Your task to perform on an android device: manage bookmarks in the chrome app Image 0: 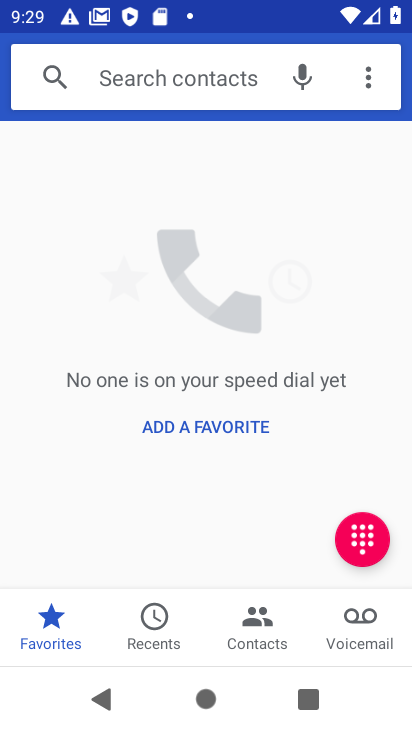
Step 0: press home button
Your task to perform on an android device: manage bookmarks in the chrome app Image 1: 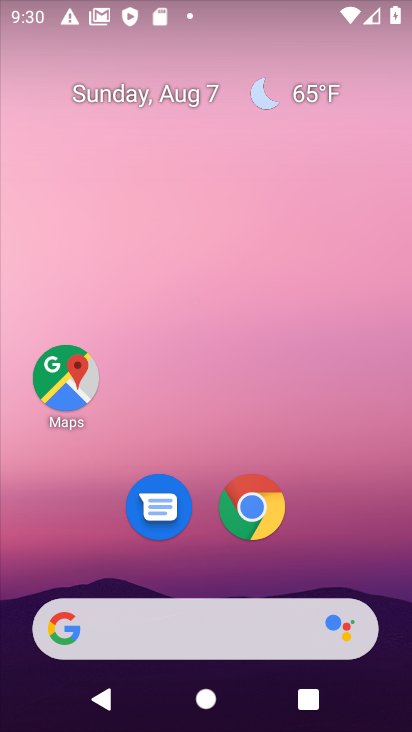
Step 1: drag from (327, 544) to (280, 97)
Your task to perform on an android device: manage bookmarks in the chrome app Image 2: 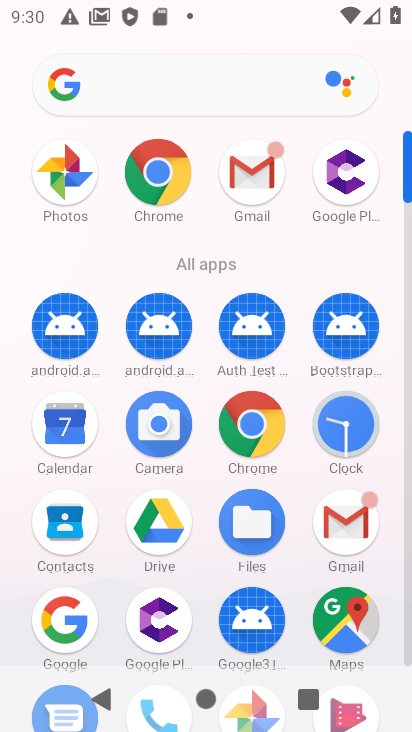
Step 2: click (261, 421)
Your task to perform on an android device: manage bookmarks in the chrome app Image 3: 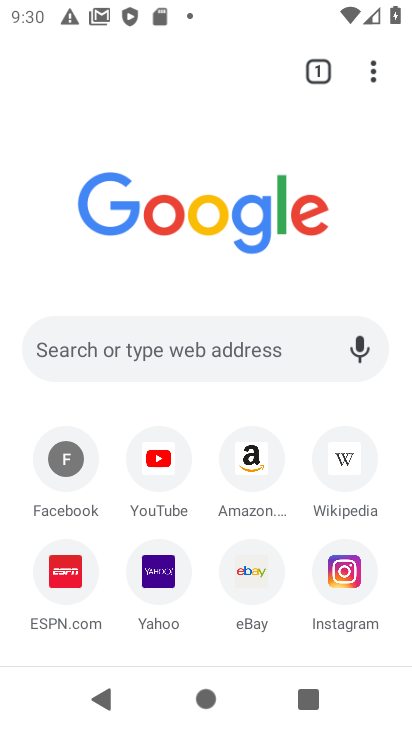
Step 3: drag from (380, 69) to (103, 178)
Your task to perform on an android device: manage bookmarks in the chrome app Image 4: 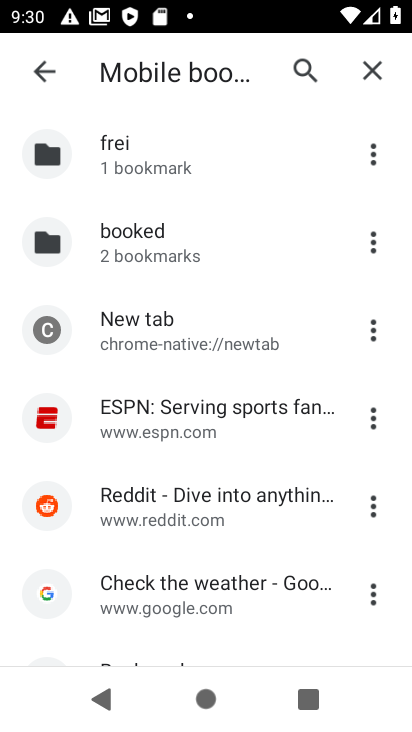
Step 4: click (380, 242)
Your task to perform on an android device: manage bookmarks in the chrome app Image 5: 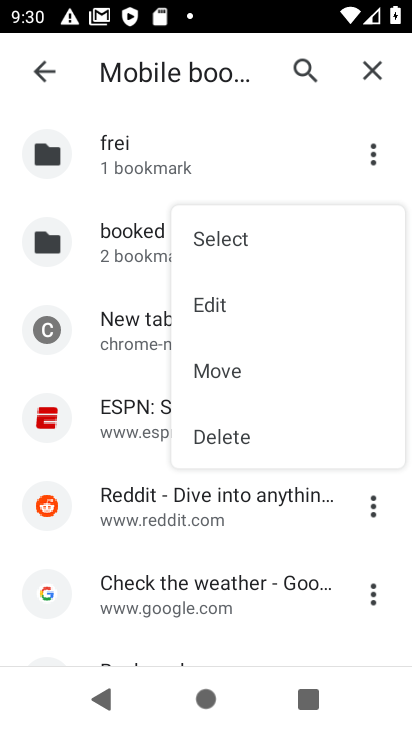
Step 5: click (200, 296)
Your task to perform on an android device: manage bookmarks in the chrome app Image 6: 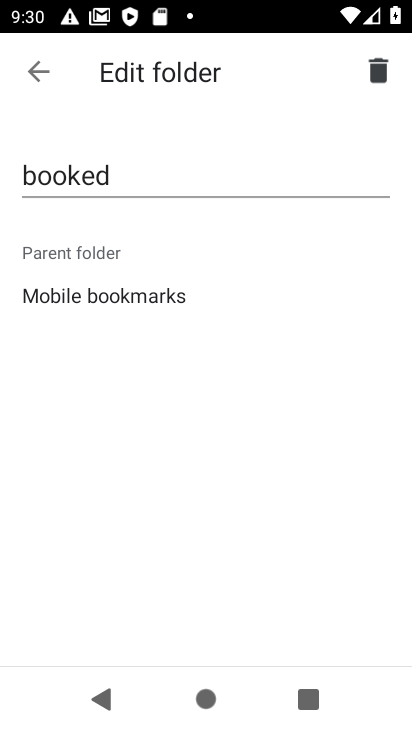
Step 6: click (225, 199)
Your task to perform on an android device: manage bookmarks in the chrome app Image 7: 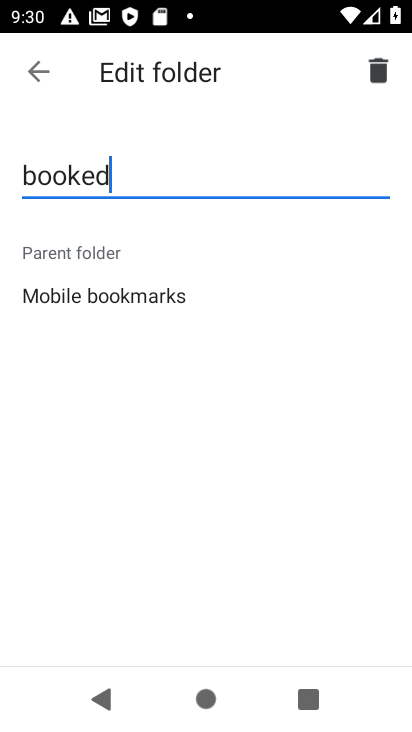
Step 7: click (228, 191)
Your task to perform on an android device: manage bookmarks in the chrome app Image 8: 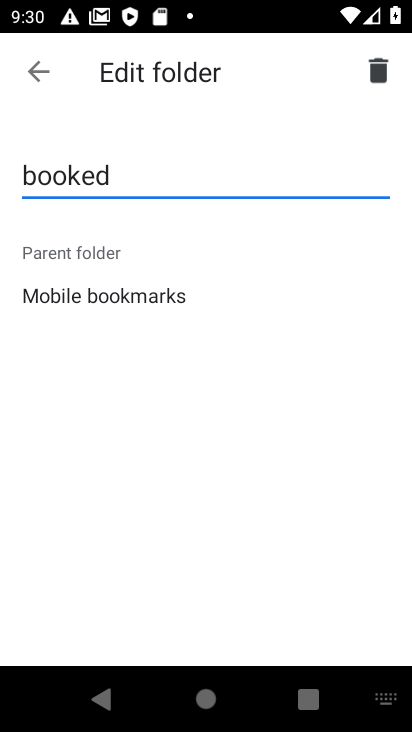
Step 8: type "d\"
Your task to perform on an android device: manage bookmarks in the chrome app Image 9: 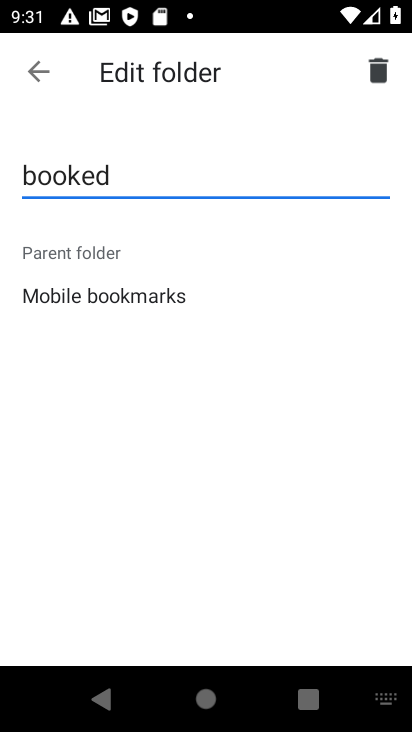
Step 9: click (201, 179)
Your task to perform on an android device: manage bookmarks in the chrome app Image 10: 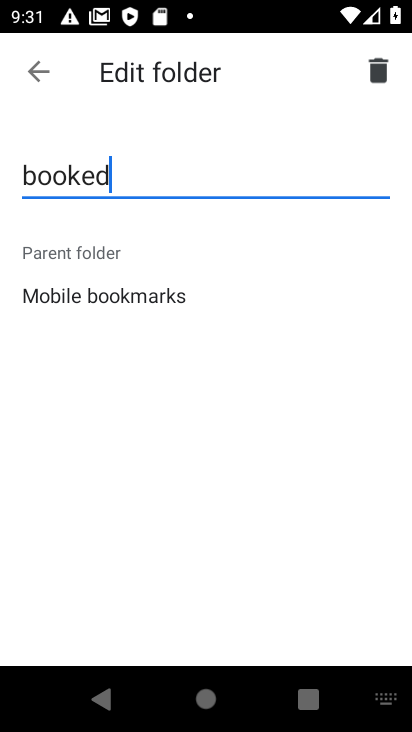
Step 10: type "f"
Your task to perform on an android device: manage bookmarks in the chrome app Image 11: 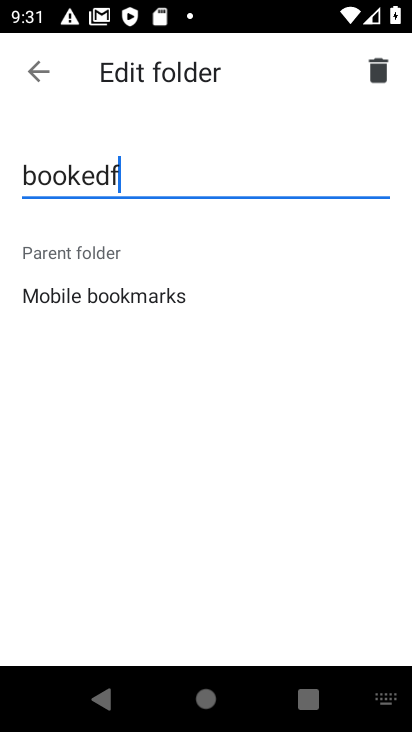
Step 11: click (48, 73)
Your task to perform on an android device: manage bookmarks in the chrome app Image 12: 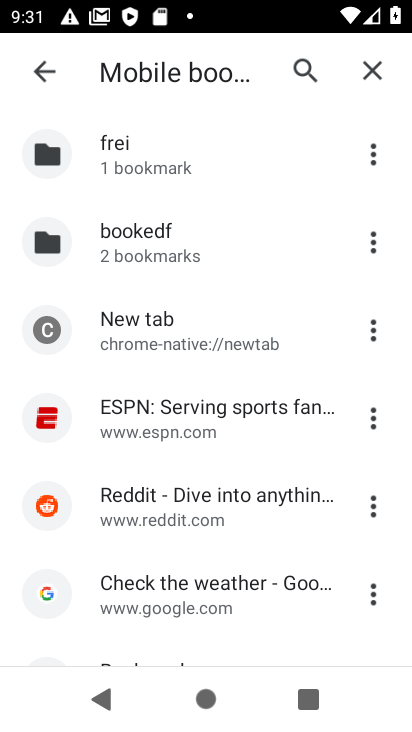
Step 12: task complete